Your task to perform on an android device: open chrome privacy settings Image 0: 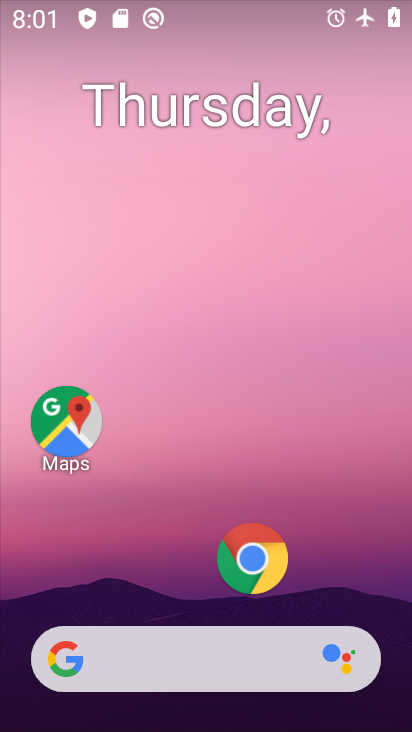
Step 0: click (252, 556)
Your task to perform on an android device: open chrome privacy settings Image 1: 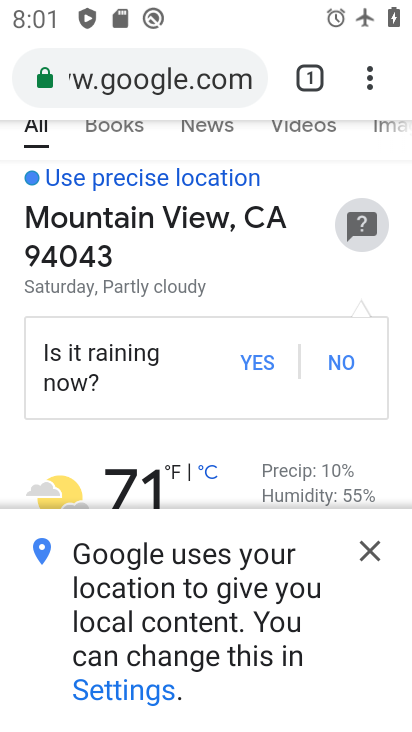
Step 1: click (362, 78)
Your task to perform on an android device: open chrome privacy settings Image 2: 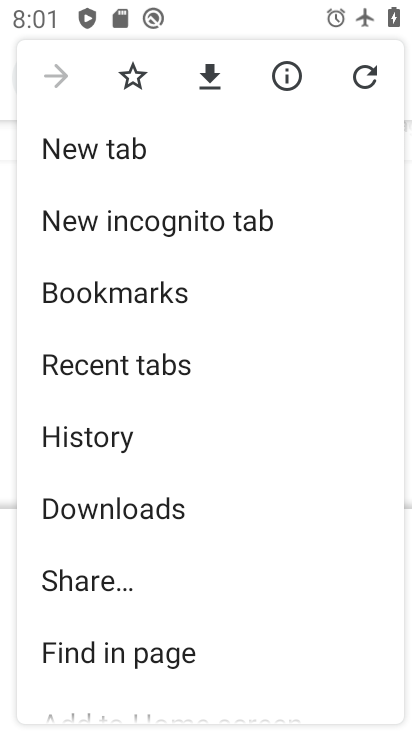
Step 2: drag from (125, 567) to (196, 194)
Your task to perform on an android device: open chrome privacy settings Image 3: 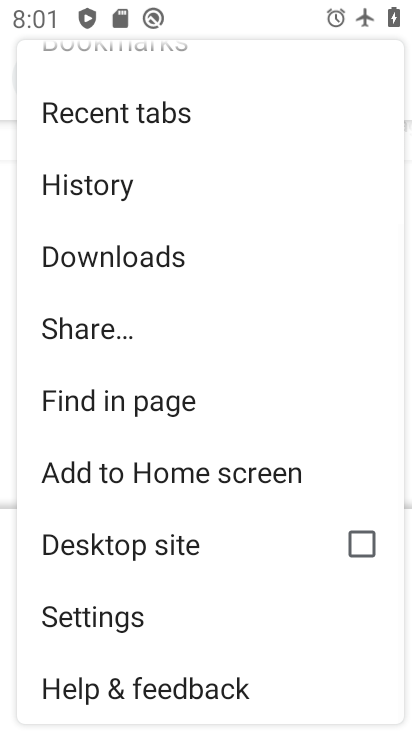
Step 3: click (108, 602)
Your task to perform on an android device: open chrome privacy settings Image 4: 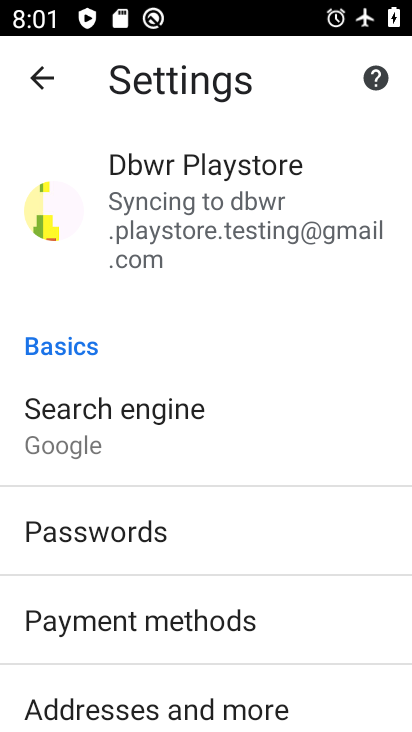
Step 4: drag from (129, 639) to (205, 236)
Your task to perform on an android device: open chrome privacy settings Image 5: 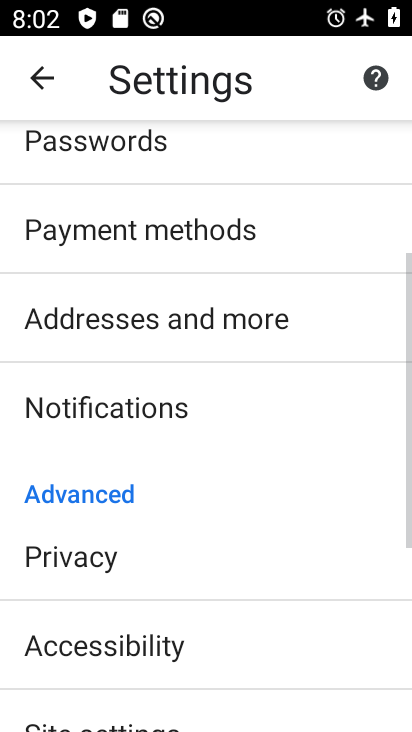
Step 5: click (98, 572)
Your task to perform on an android device: open chrome privacy settings Image 6: 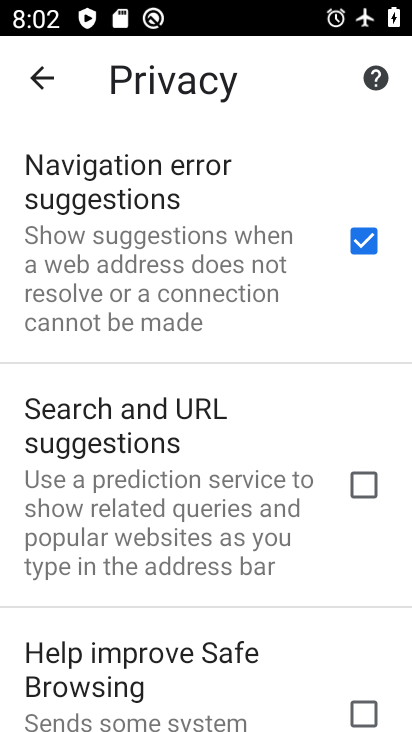
Step 6: task complete